Your task to perform on an android device: Do I have any events tomorrow? Image 0: 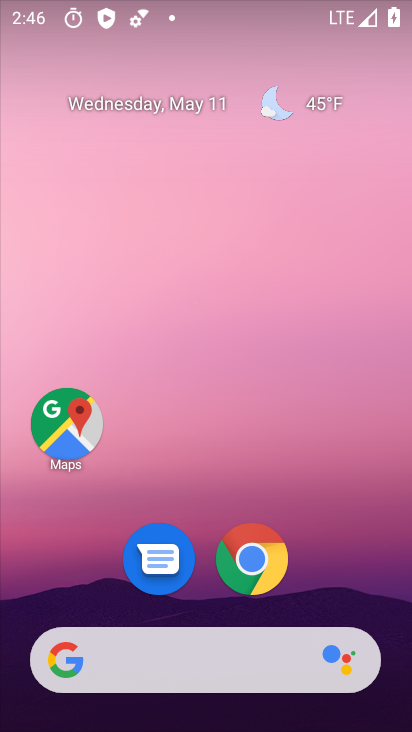
Step 0: click (158, 98)
Your task to perform on an android device: Do I have any events tomorrow? Image 1: 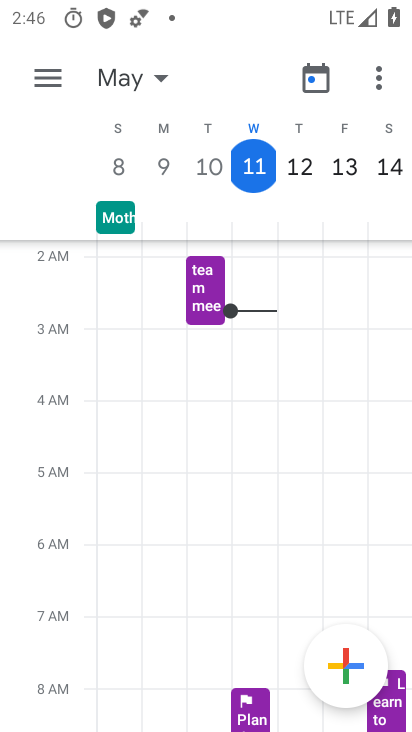
Step 1: task complete